Your task to perform on an android device: toggle location history Image 0: 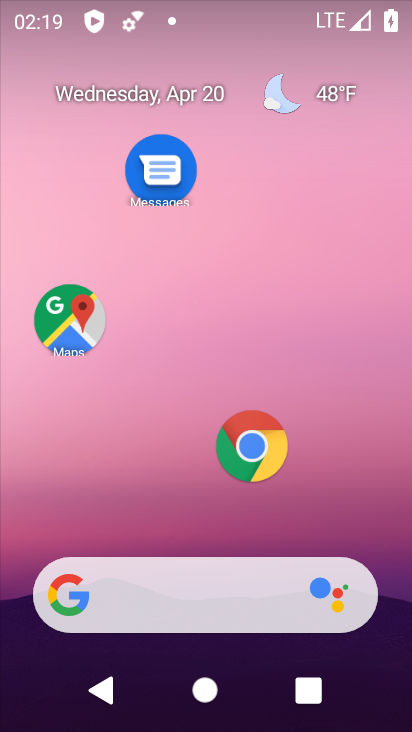
Step 0: drag from (187, 512) to (259, 73)
Your task to perform on an android device: toggle location history Image 1: 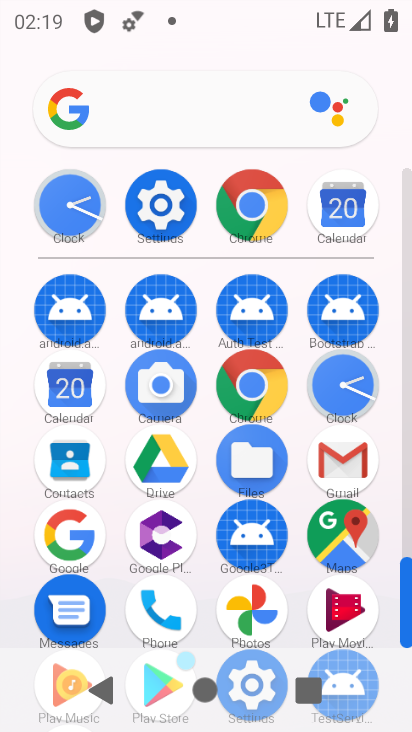
Step 1: drag from (207, 563) to (241, 213)
Your task to perform on an android device: toggle location history Image 2: 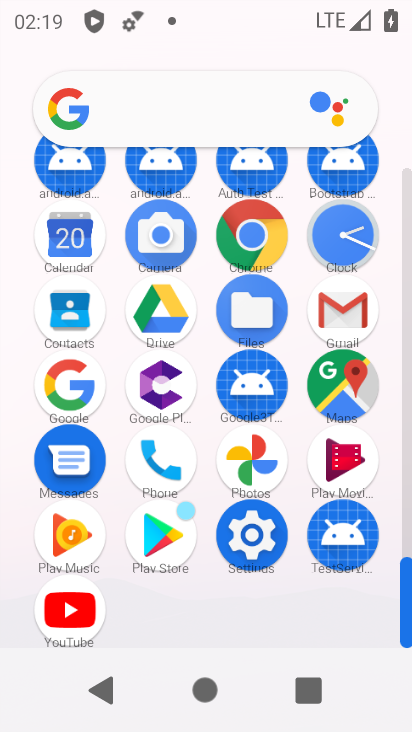
Step 2: click (250, 521)
Your task to perform on an android device: toggle location history Image 3: 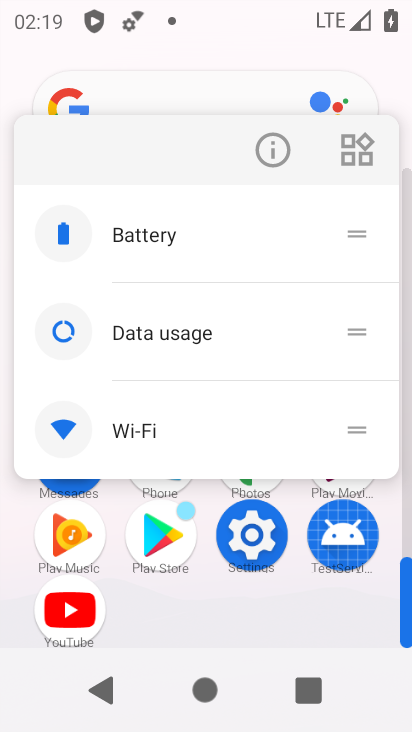
Step 3: click (236, 610)
Your task to perform on an android device: toggle location history Image 4: 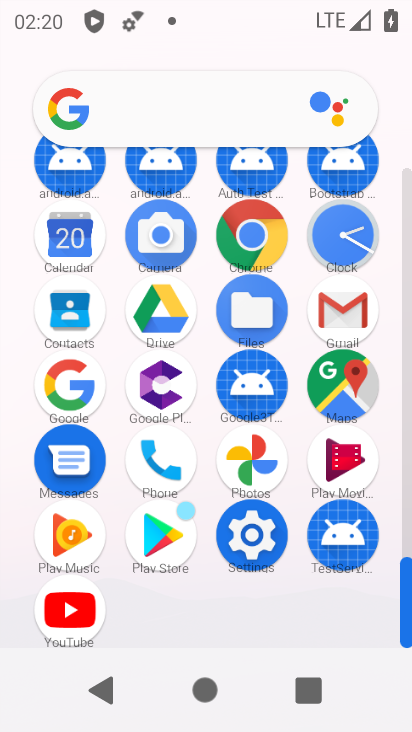
Step 4: click (255, 528)
Your task to perform on an android device: toggle location history Image 5: 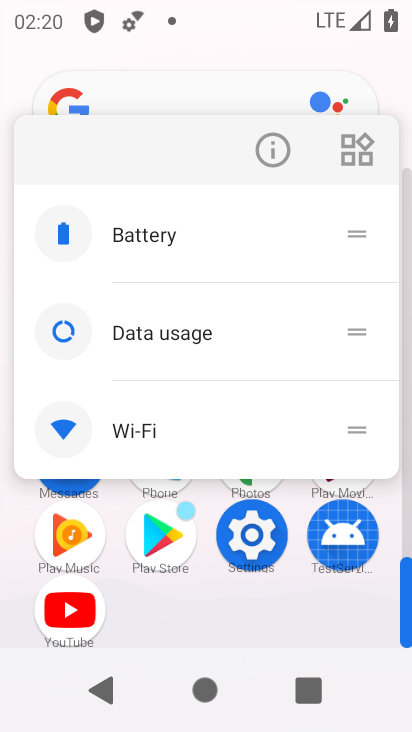
Step 5: click (252, 527)
Your task to perform on an android device: toggle location history Image 6: 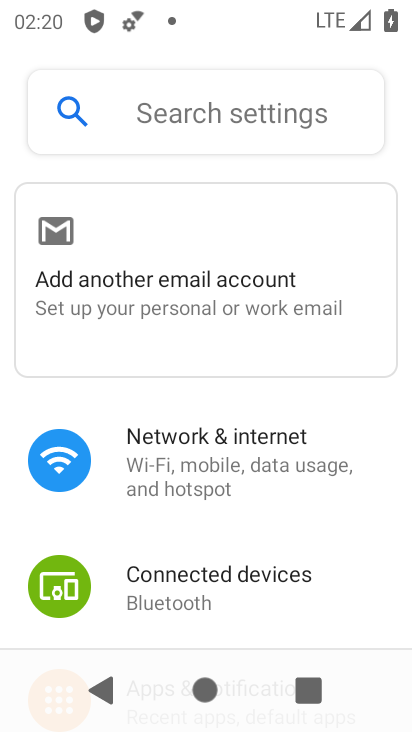
Step 6: drag from (237, 597) to (279, 201)
Your task to perform on an android device: toggle location history Image 7: 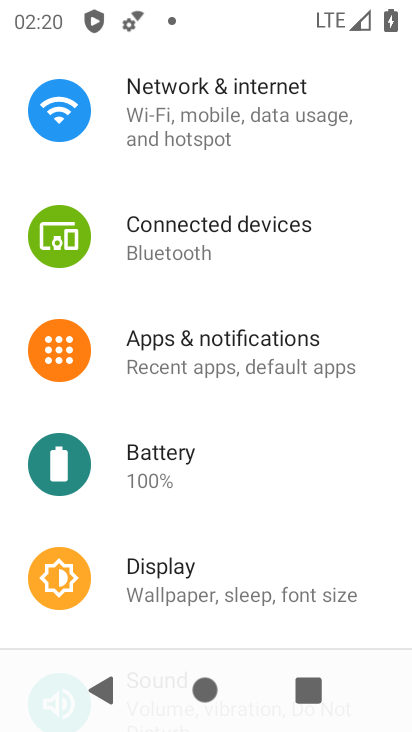
Step 7: drag from (214, 577) to (254, 126)
Your task to perform on an android device: toggle location history Image 8: 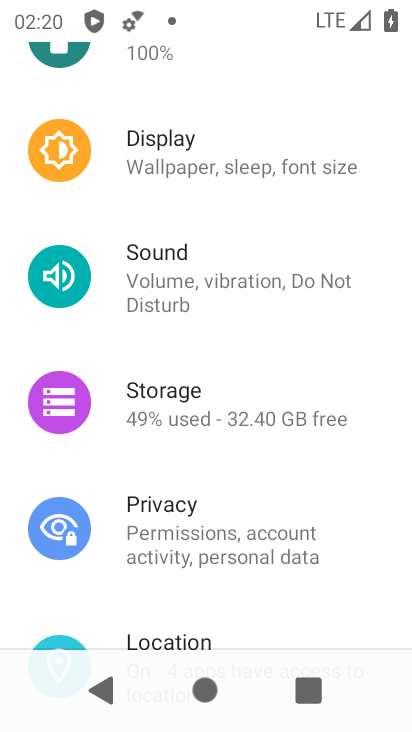
Step 8: click (217, 631)
Your task to perform on an android device: toggle location history Image 9: 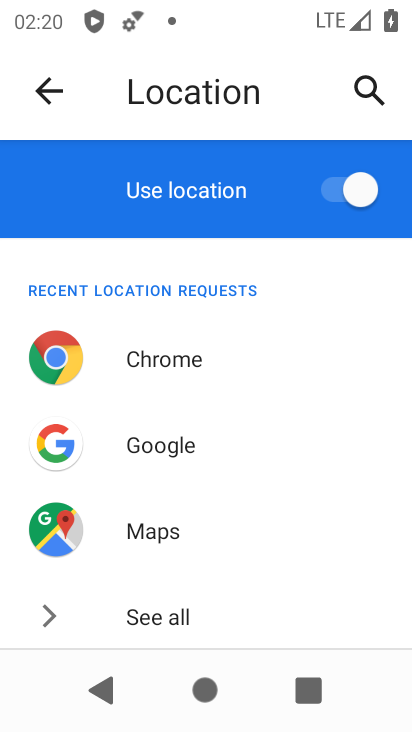
Step 9: drag from (213, 622) to (268, 200)
Your task to perform on an android device: toggle location history Image 10: 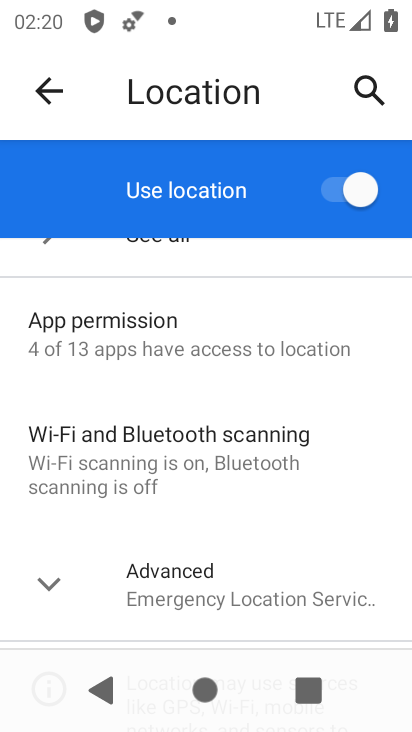
Step 10: click (55, 579)
Your task to perform on an android device: toggle location history Image 11: 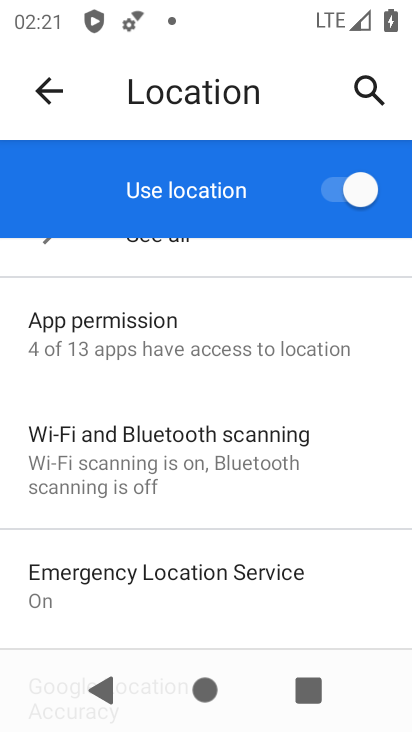
Step 11: drag from (187, 606) to (238, 297)
Your task to perform on an android device: toggle location history Image 12: 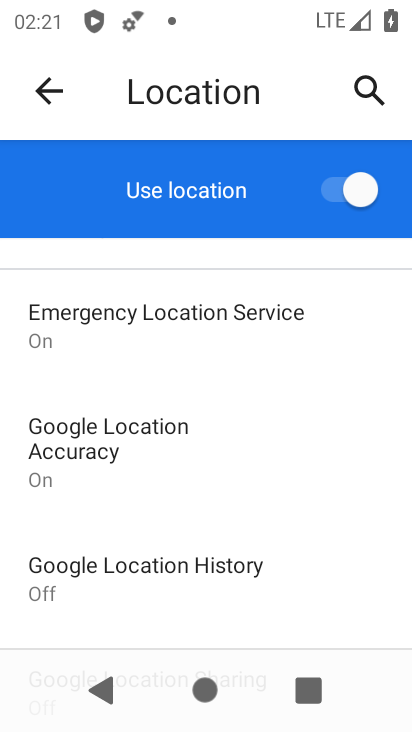
Step 12: click (170, 580)
Your task to perform on an android device: toggle location history Image 13: 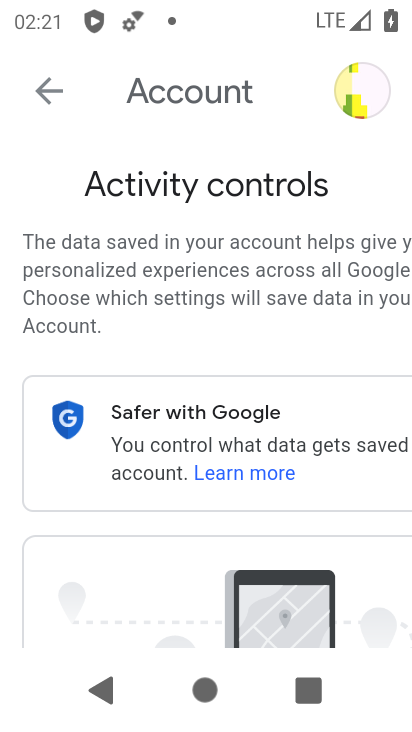
Step 13: task complete